Your task to perform on an android device: Check the news Image 0: 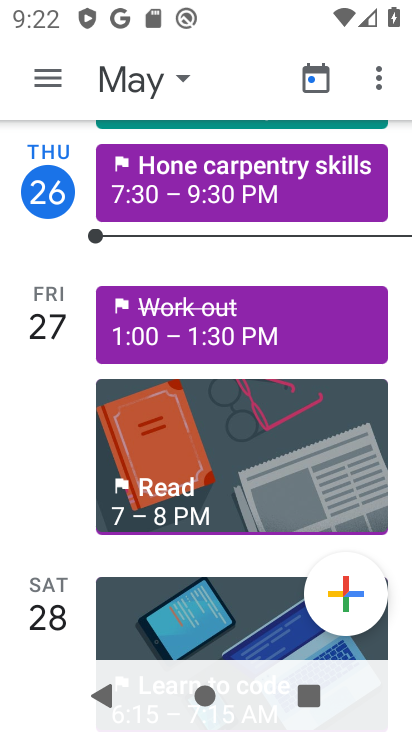
Step 0: press home button
Your task to perform on an android device: Check the news Image 1: 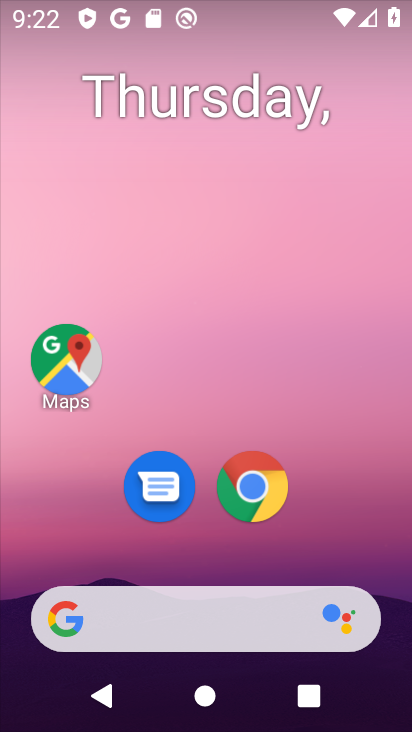
Step 1: click (161, 611)
Your task to perform on an android device: Check the news Image 2: 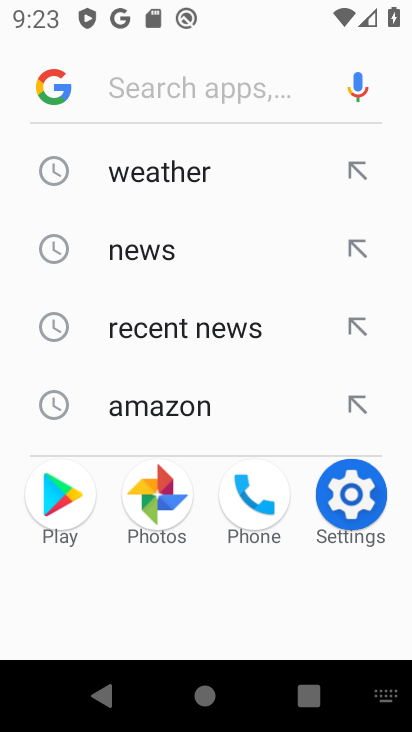
Step 2: type "news"
Your task to perform on an android device: Check the news Image 3: 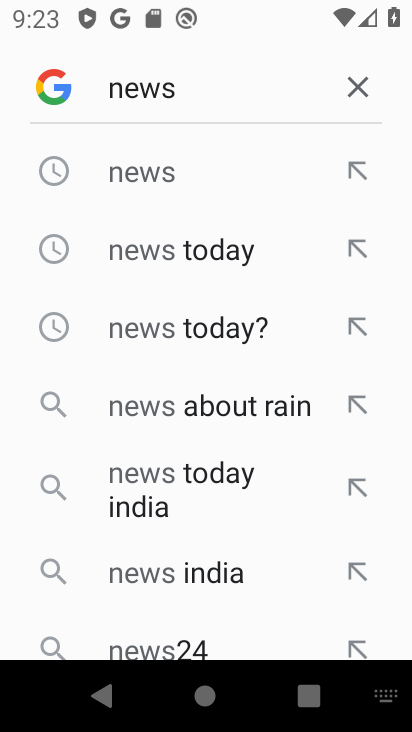
Step 3: click (111, 190)
Your task to perform on an android device: Check the news Image 4: 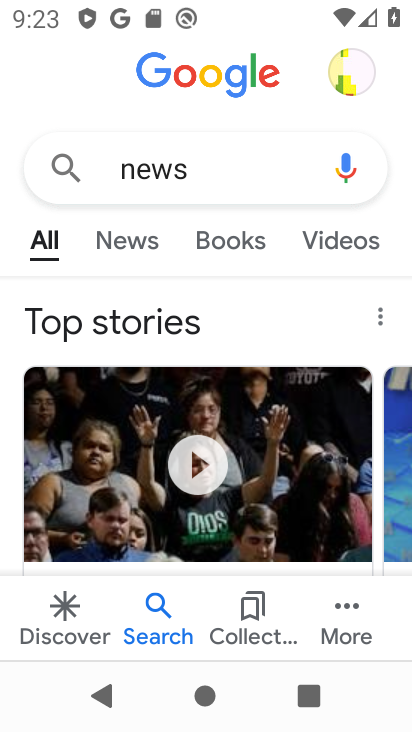
Step 4: click (125, 249)
Your task to perform on an android device: Check the news Image 5: 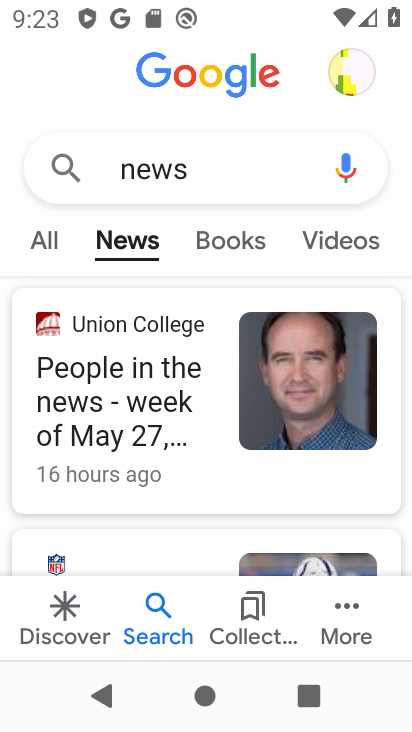
Step 5: task complete